Your task to perform on an android device: turn off wifi Image 0: 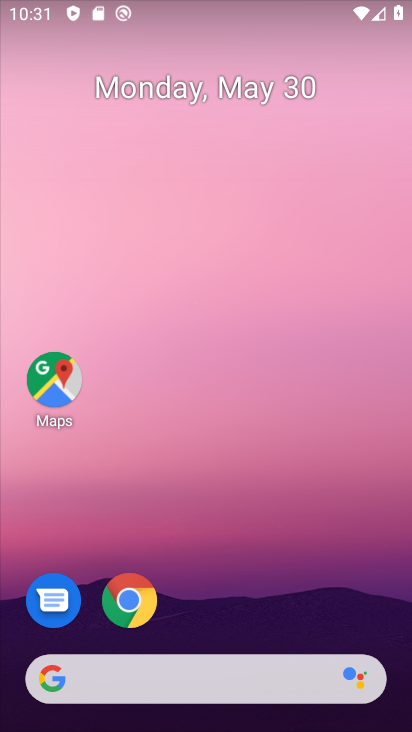
Step 0: drag from (177, 6) to (156, 417)
Your task to perform on an android device: turn off wifi Image 1: 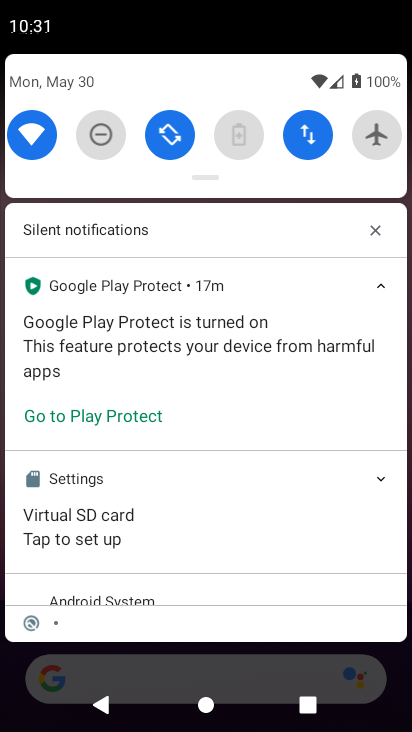
Step 1: click (29, 124)
Your task to perform on an android device: turn off wifi Image 2: 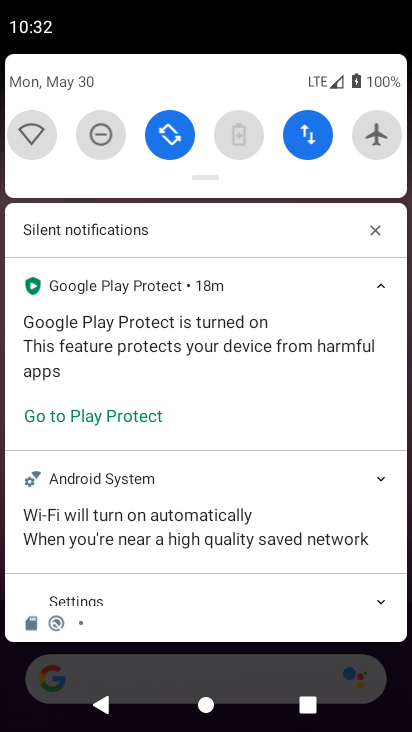
Step 2: task complete